Your task to perform on an android device: turn off location Image 0: 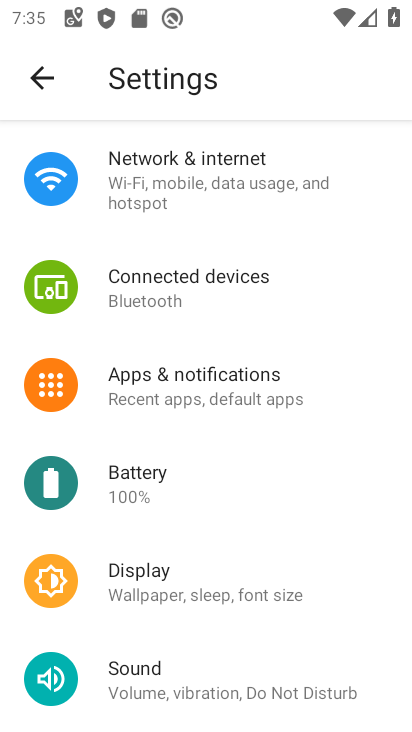
Step 0: drag from (206, 660) to (264, 163)
Your task to perform on an android device: turn off location Image 1: 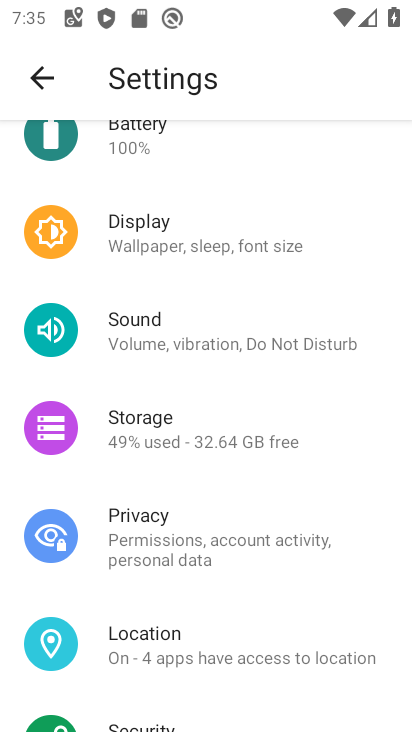
Step 1: click (210, 644)
Your task to perform on an android device: turn off location Image 2: 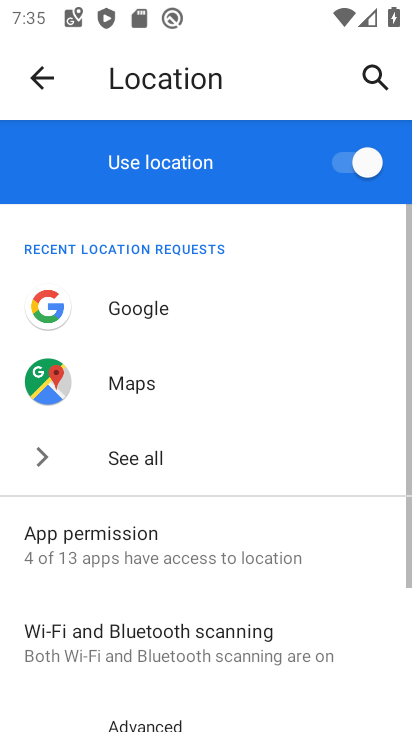
Step 2: click (365, 160)
Your task to perform on an android device: turn off location Image 3: 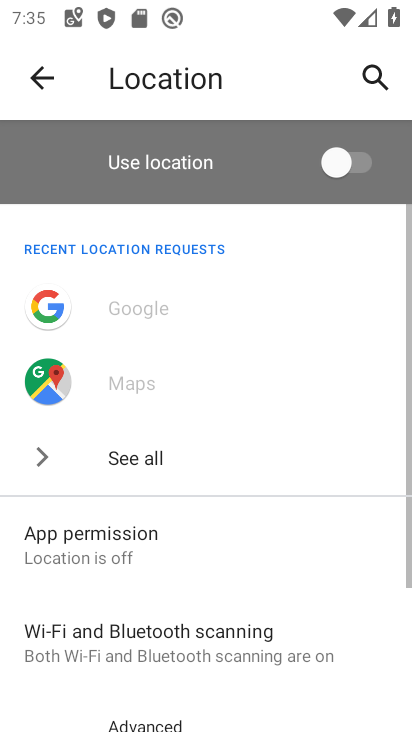
Step 3: task complete